Your task to perform on an android device: manage bookmarks in the chrome app Image 0: 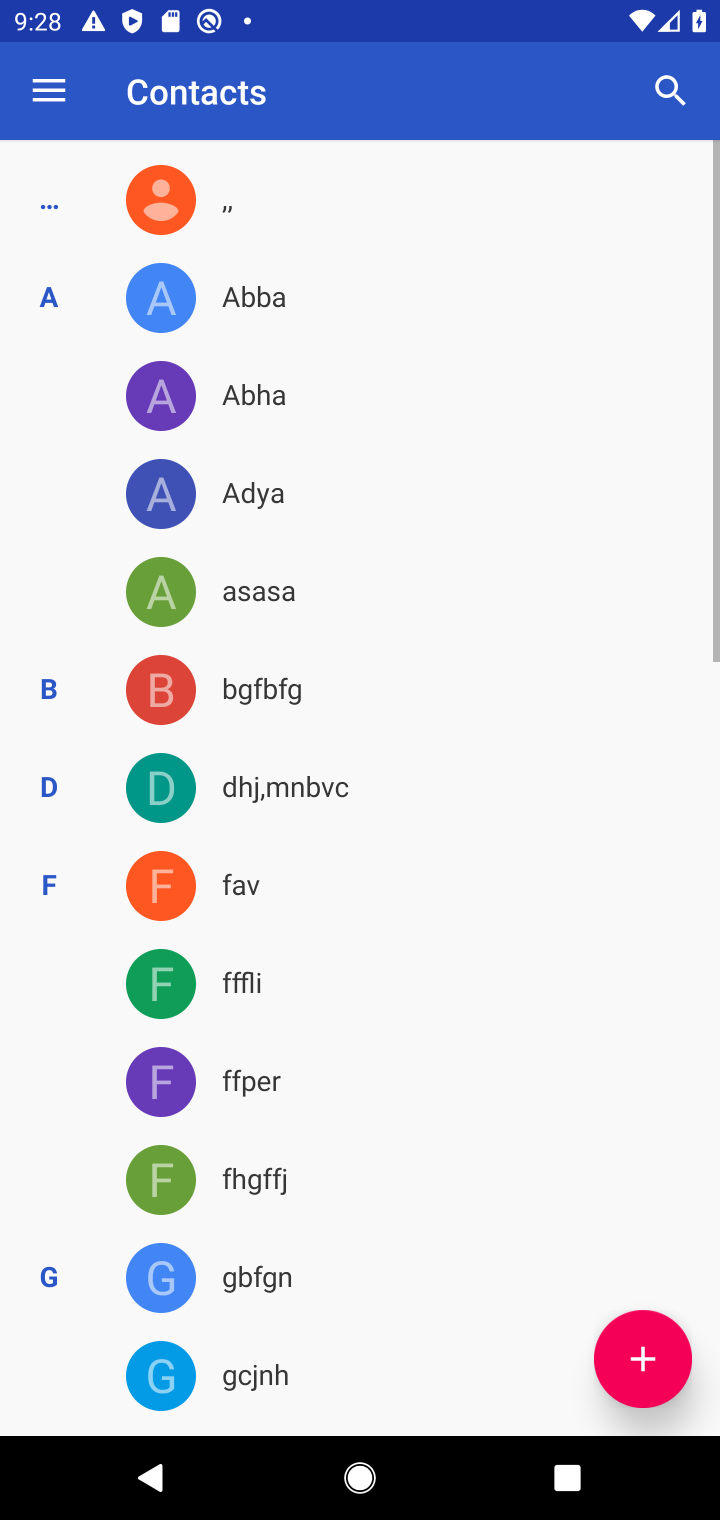
Step 0: press home button
Your task to perform on an android device: manage bookmarks in the chrome app Image 1: 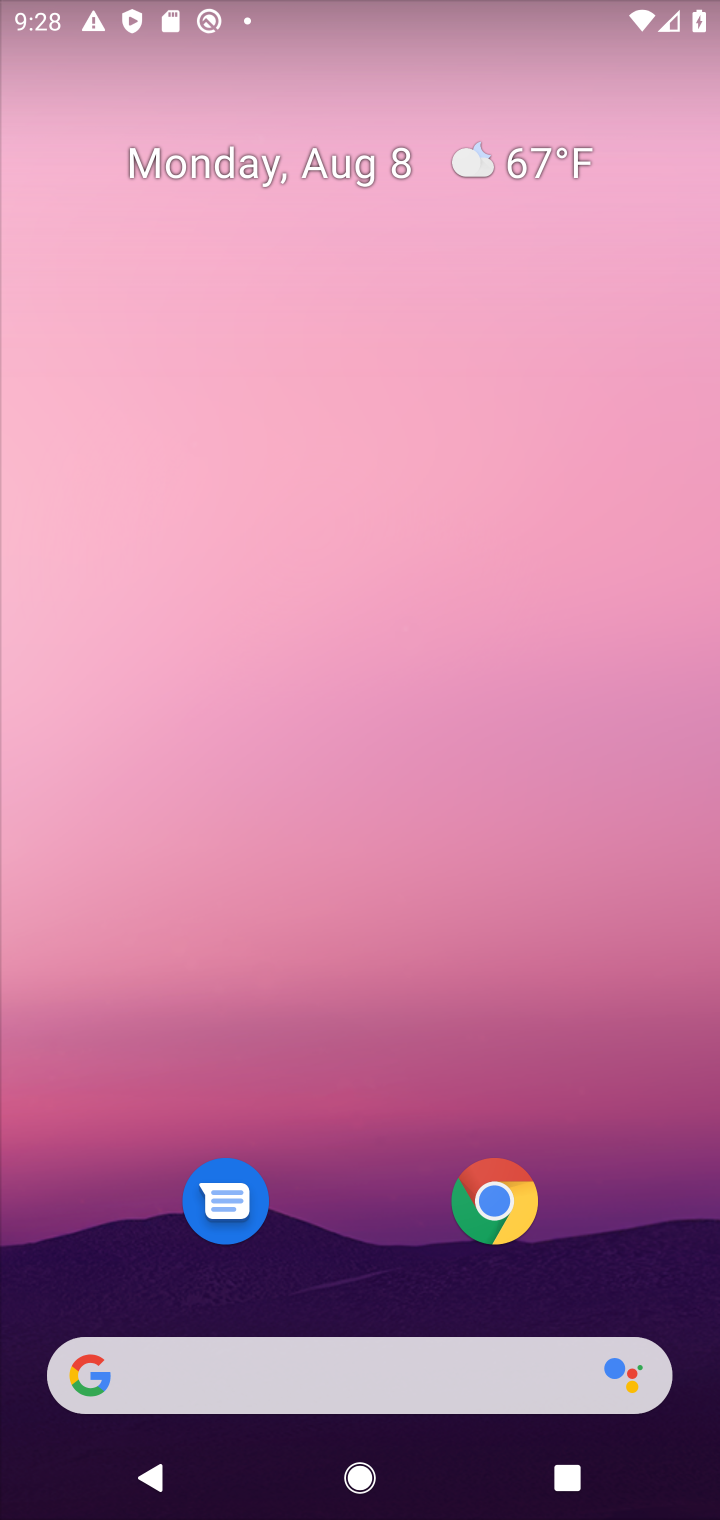
Step 1: drag from (397, 1261) to (358, 298)
Your task to perform on an android device: manage bookmarks in the chrome app Image 2: 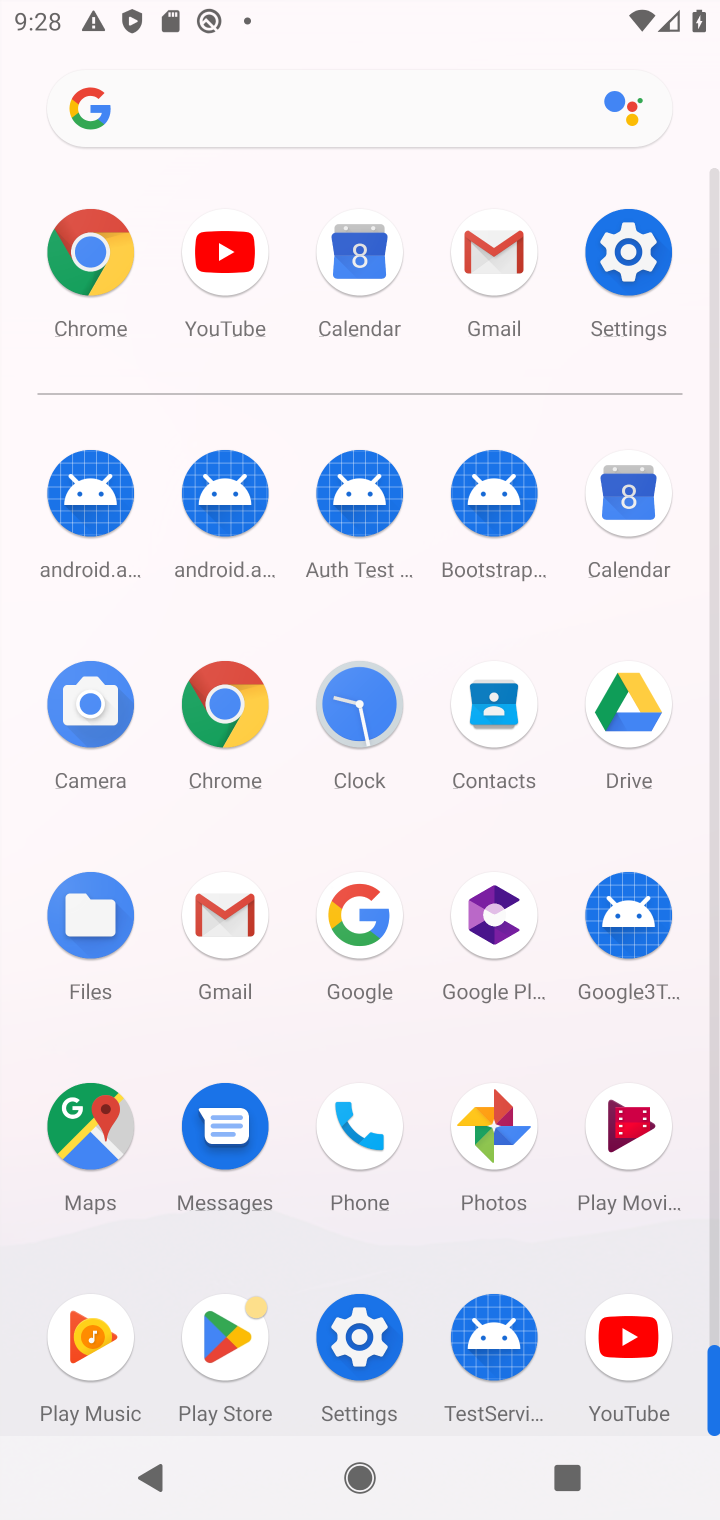
Step 2: click (230, 704)
Your task to perform on an android device: manage bookmarks in the chrome app Image 3: 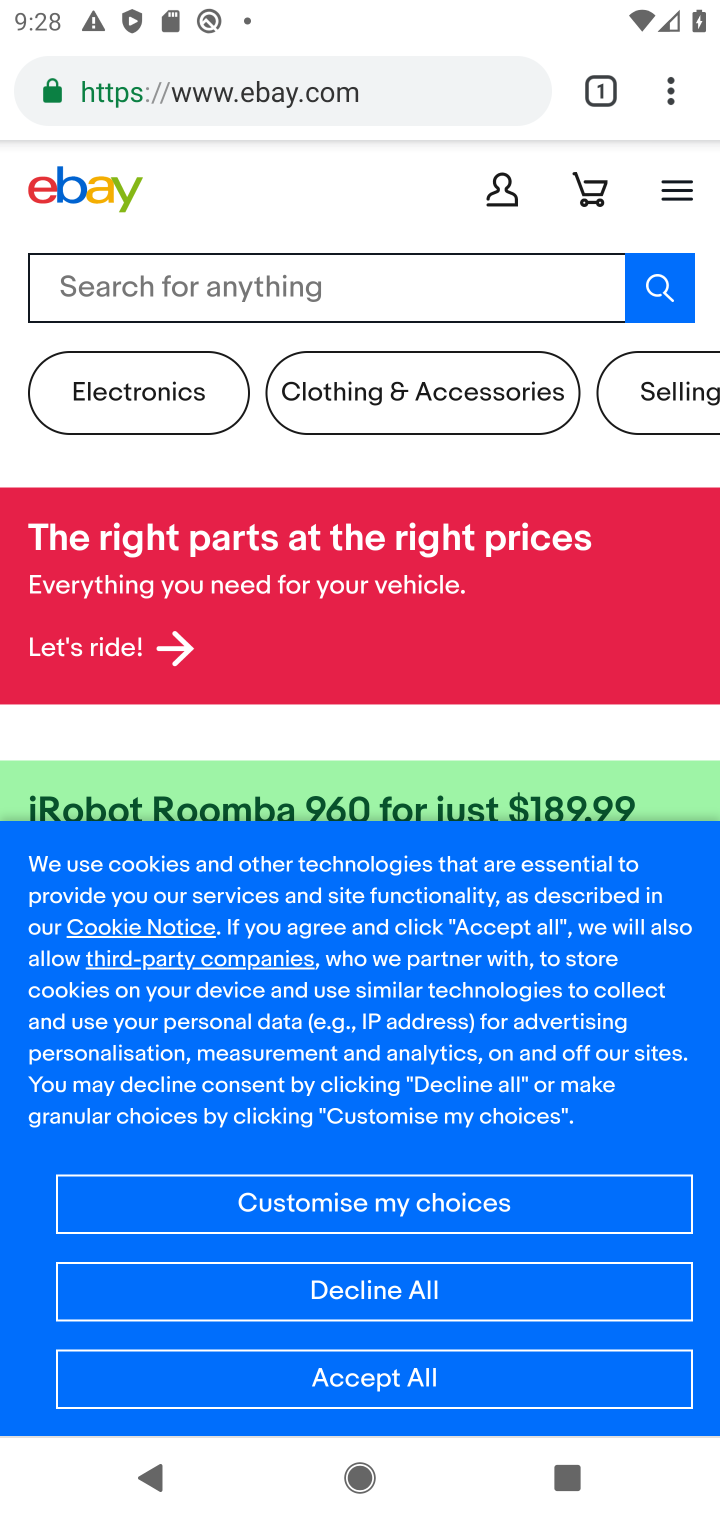
Step 3: click (669, 89)
Your task to perform on an android device: manage bookmarks in the chrome app Image 4: 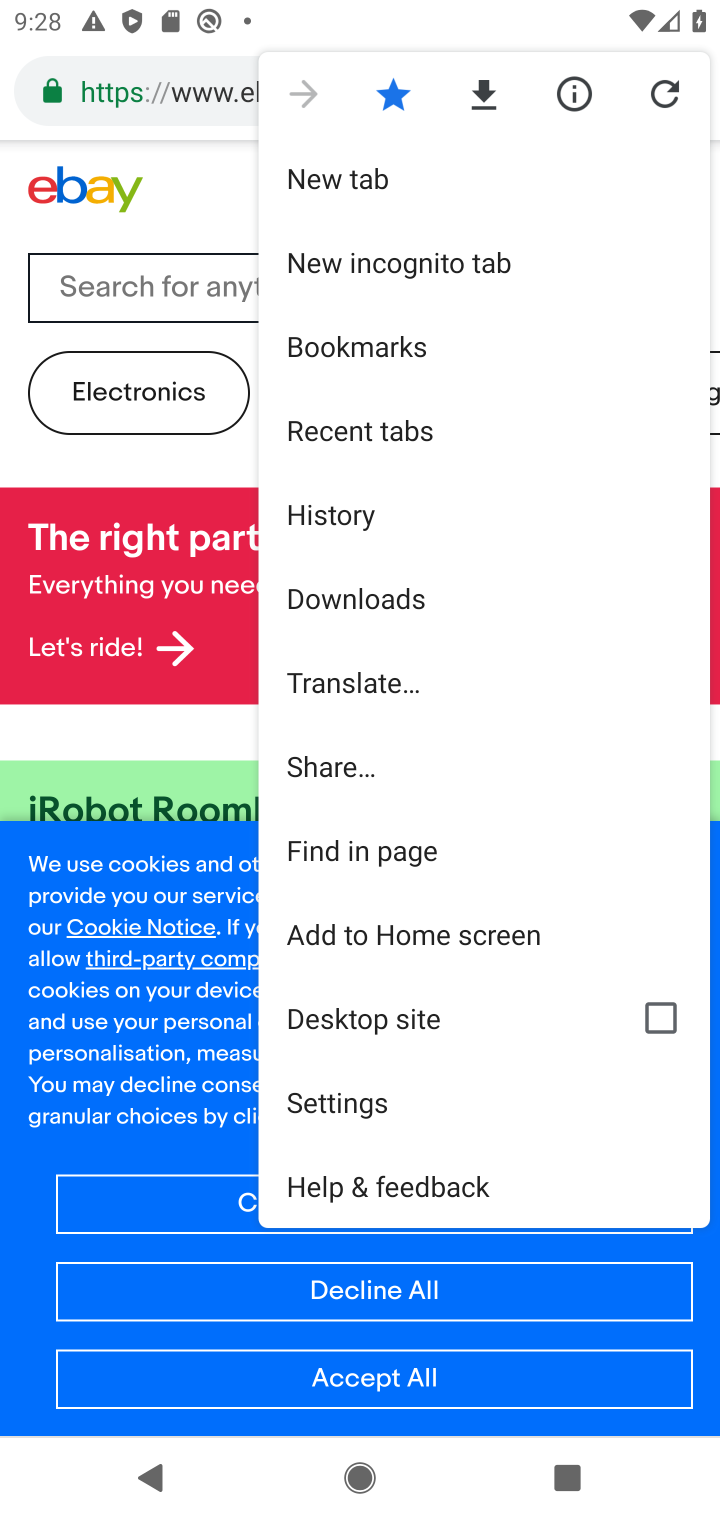
Step 4: click (393, 352)
Your task to perform on an android device: manage bookmarks in the chrome app Image 5: 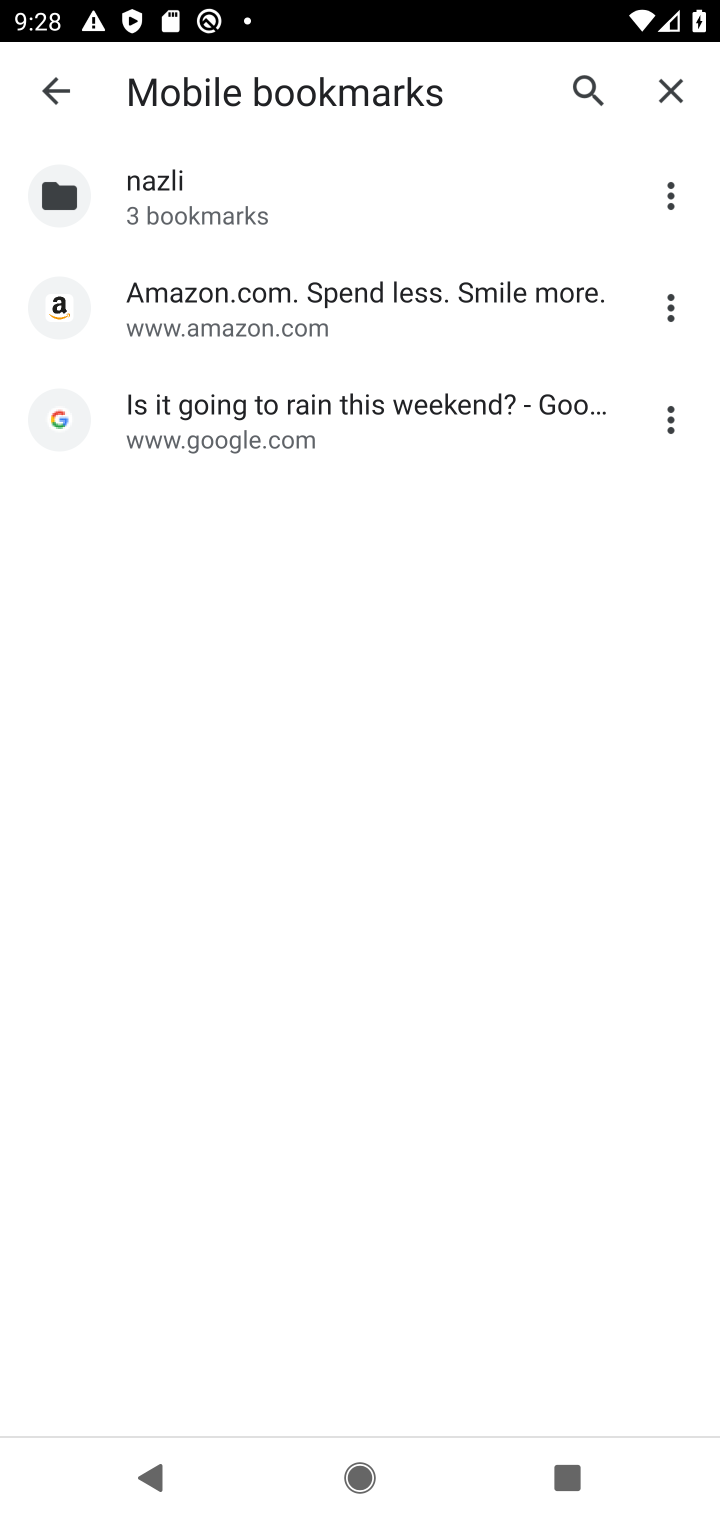
Step 5: click (672, 206)
Your task to perform on an android device: manage bookmarks in the chrome app Image 6: 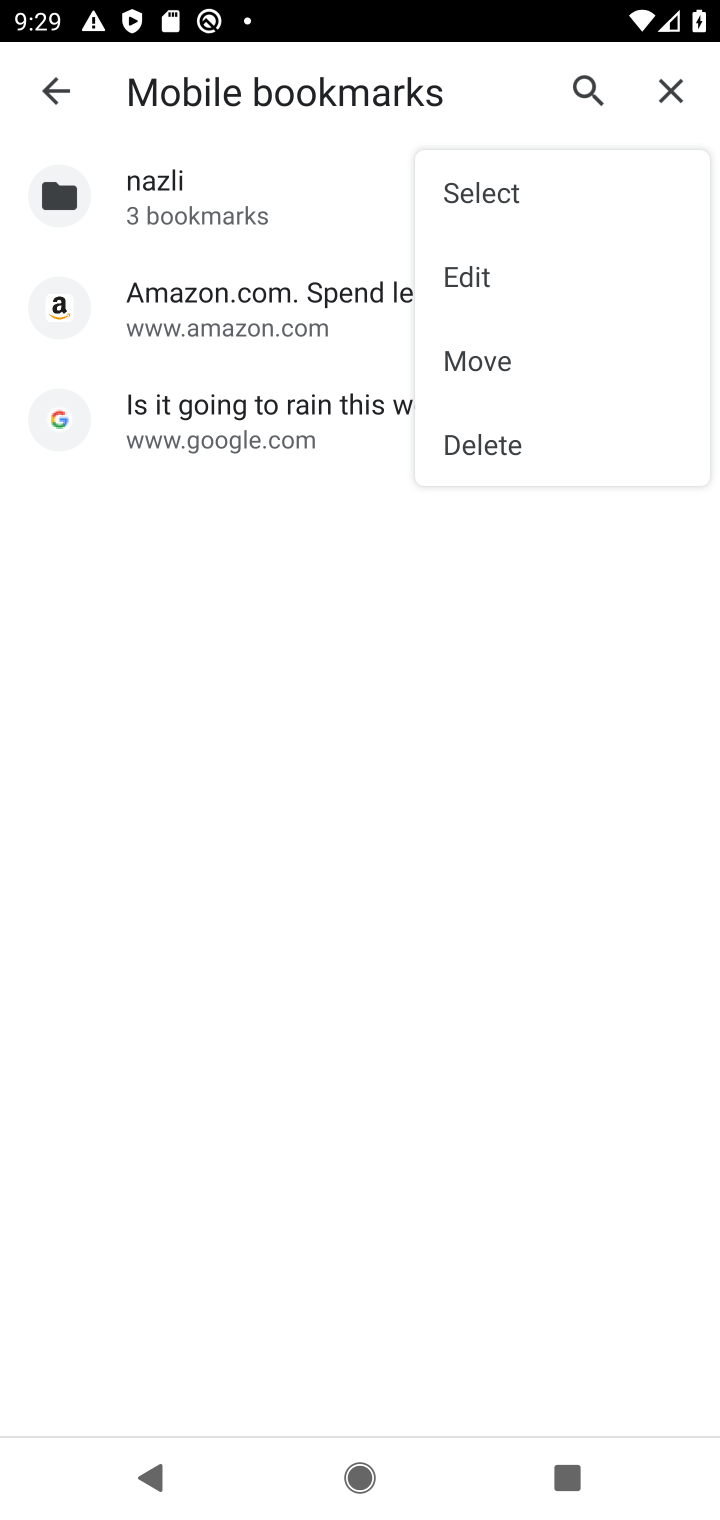
Step 6: click (492, 275)
Your task to perform on an android device: manage bookmarks in the chrome app Image 7: 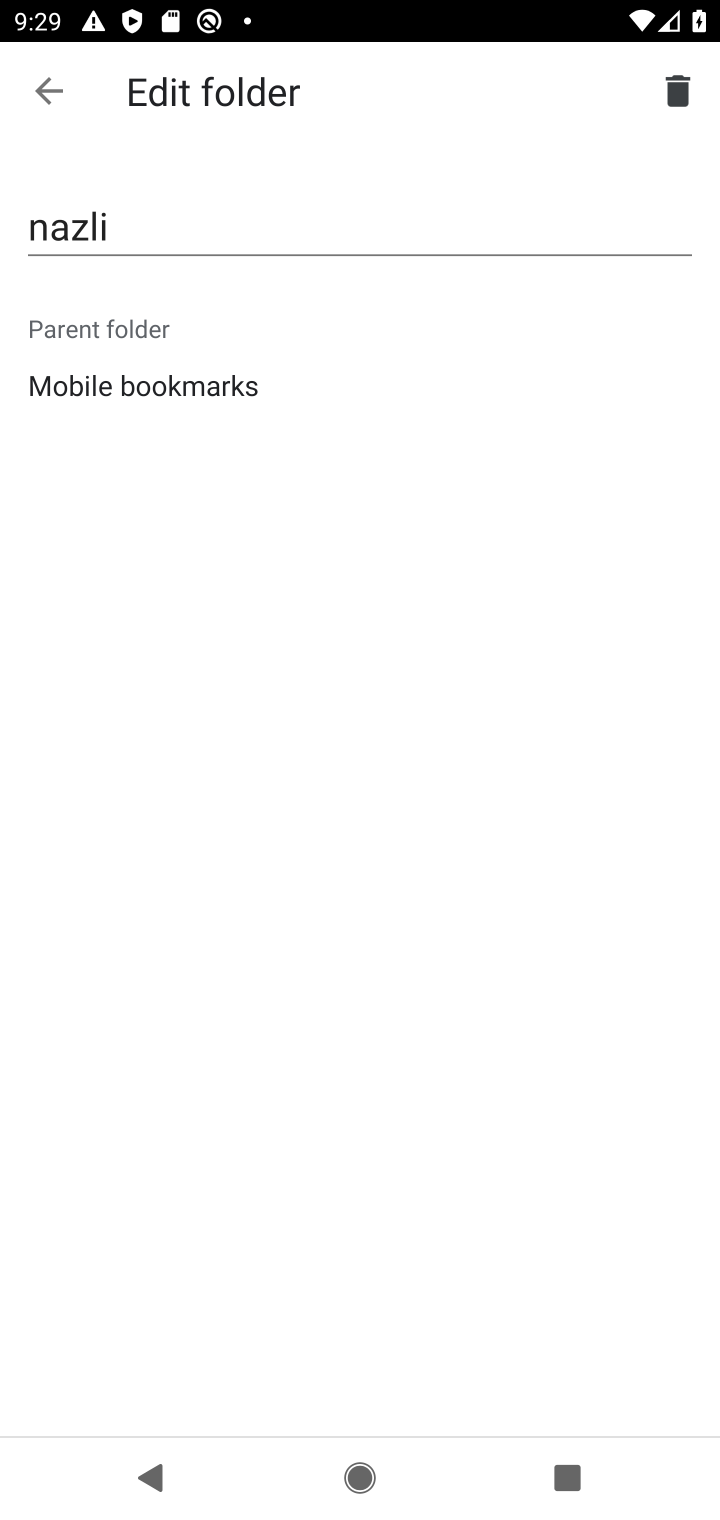
Step 7: click (238, 201)
Your task to perform on an android device: manage bookmarks in the chrome app Image 8: 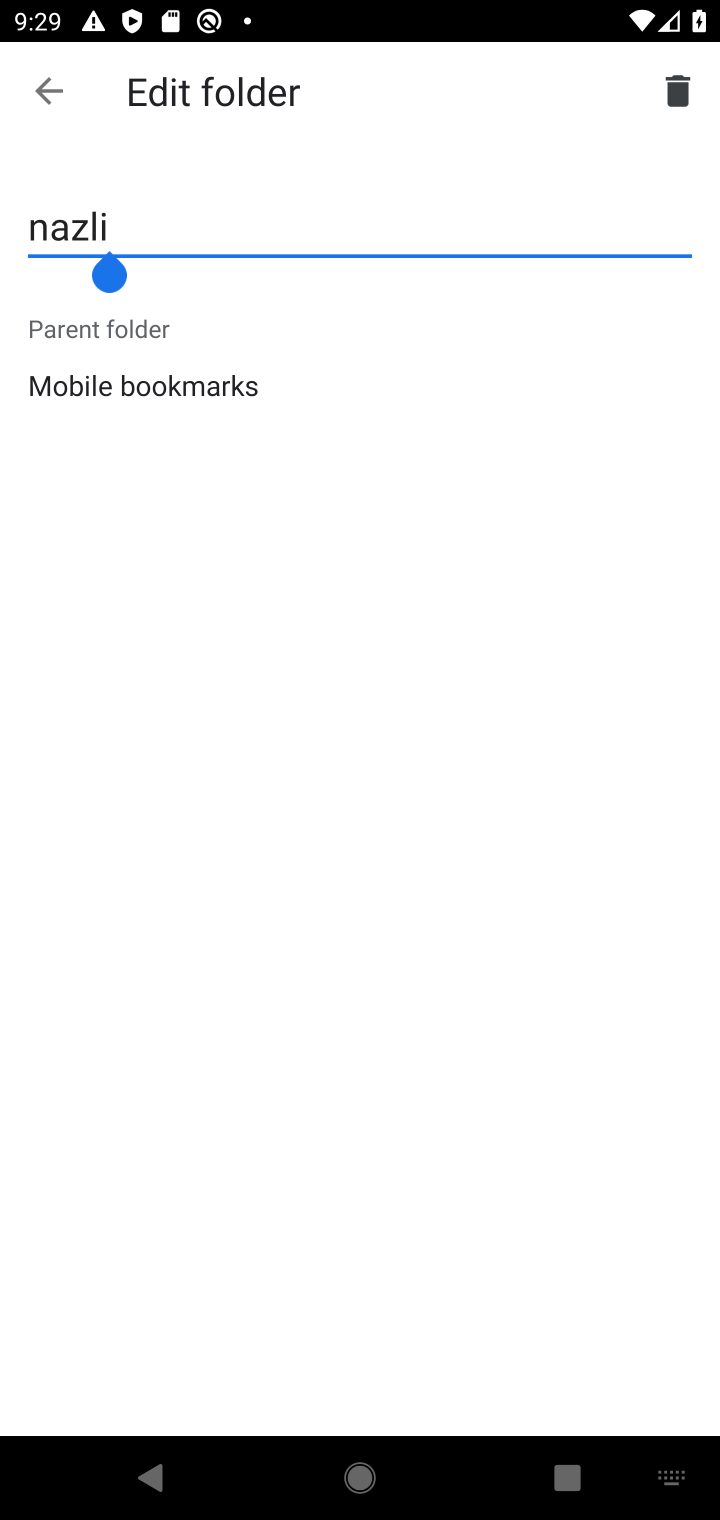
Step 8: type "l"
Your task to perform on an android device: manage bookmarks in the chrome app Image 9: 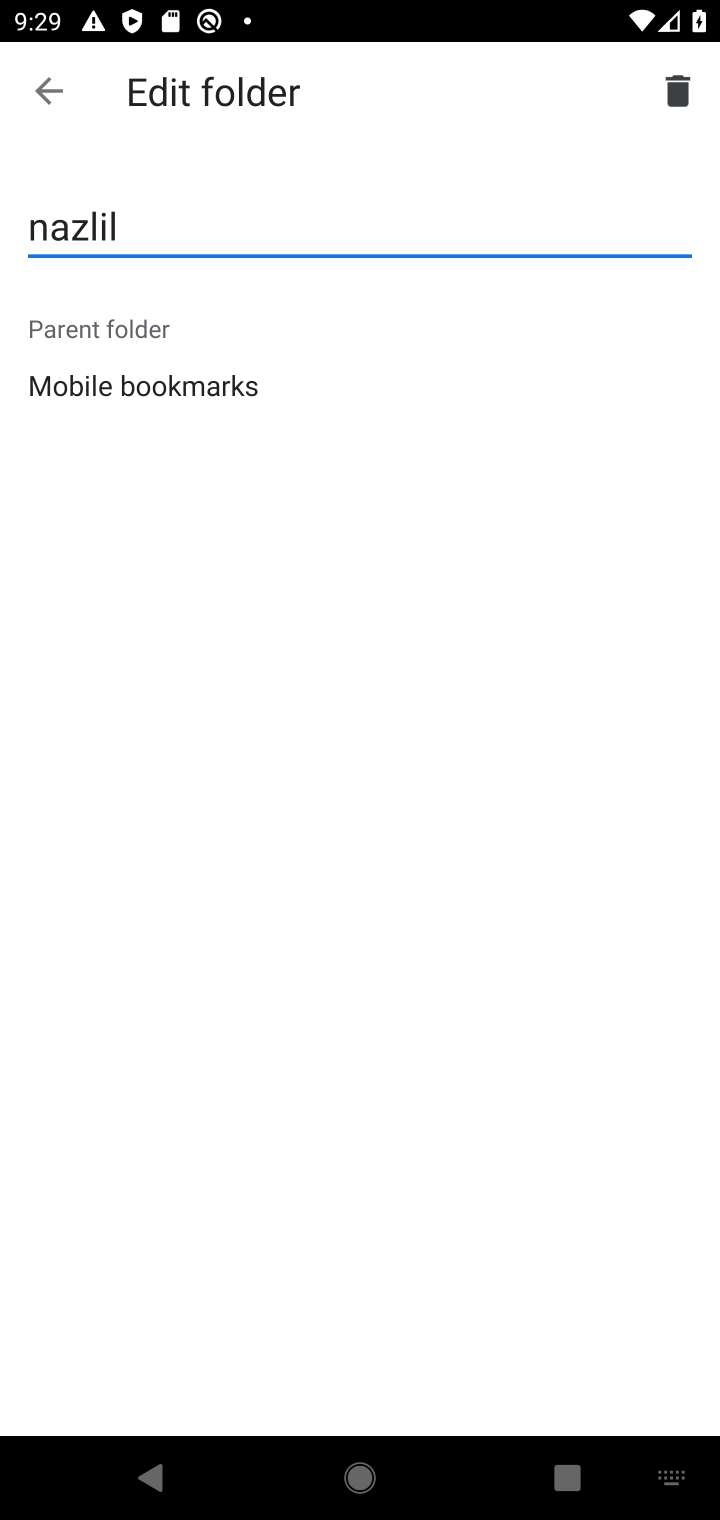
Step 9: click (50, 76)
Your task to perform on an android device: manage bookmarks in the chrome app Image 10: 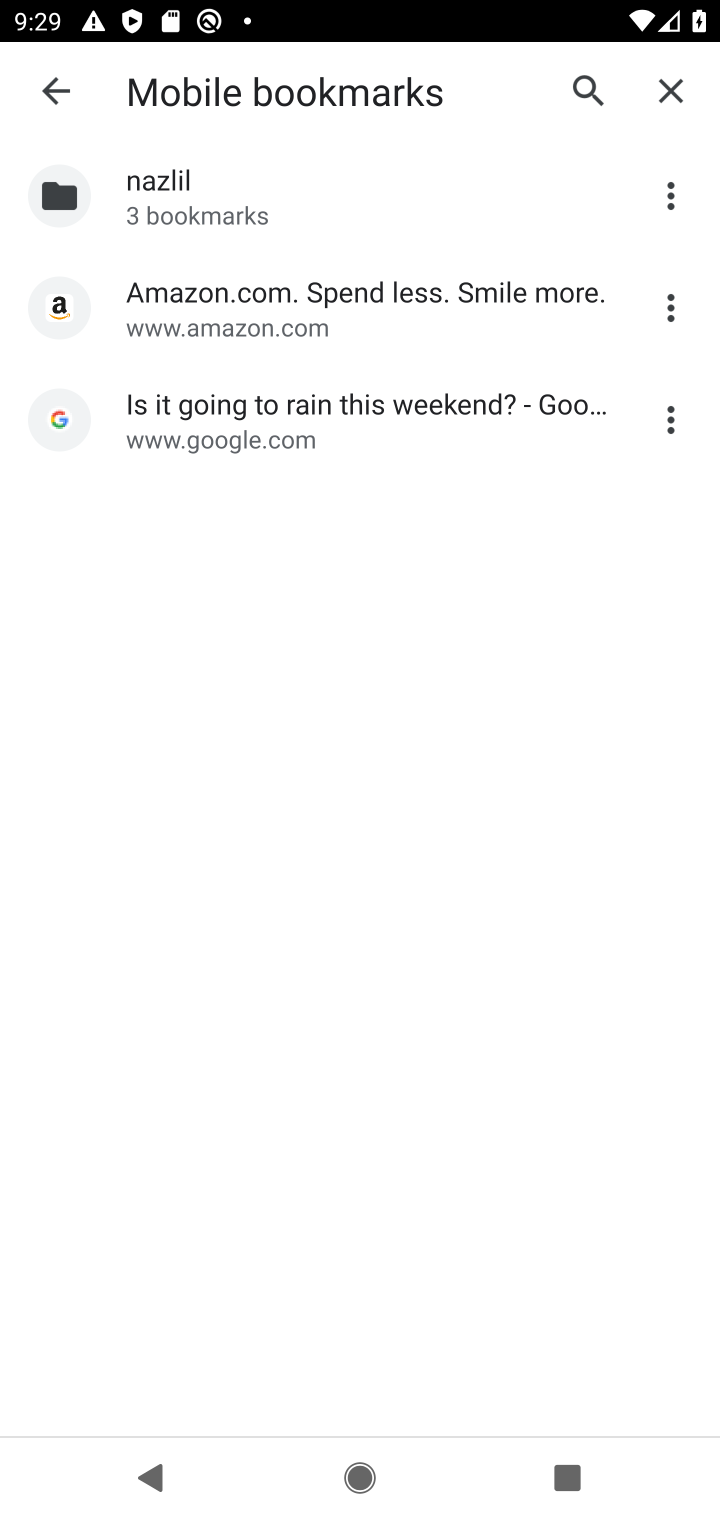
Step 10: task complete